Your task to perform on an android device: turn on wifi Image 0: 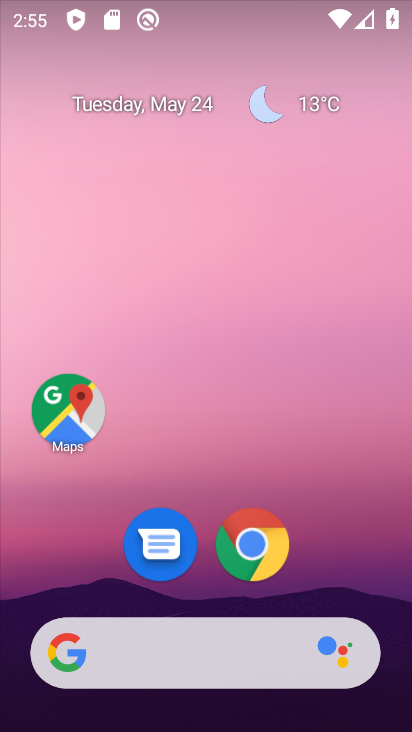
Step 0: drag from (313, 582) to (62, 9)
Your task to perform on an android device: turn on wifi Image 1: 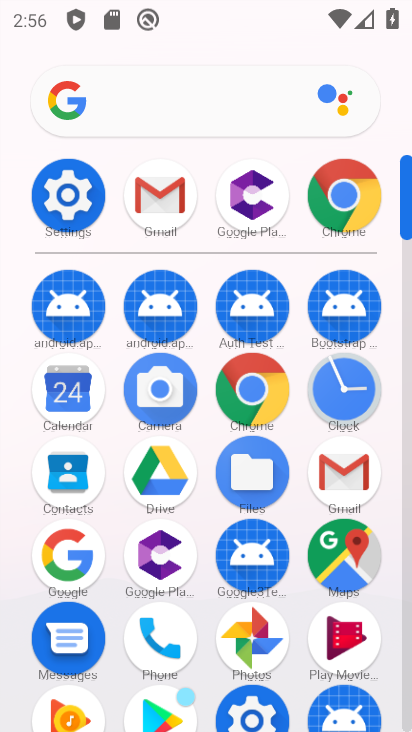
Step 1: click (66, 219)
Your task to perform on an android device: turn on wifi Image 2: 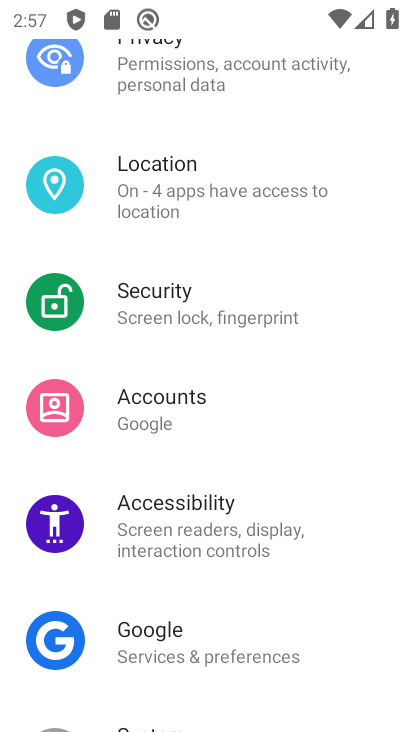
Step 2: drag from (157, 104) to (246, 692)
Your task to perform on an android device: turn on wifi Image 3: 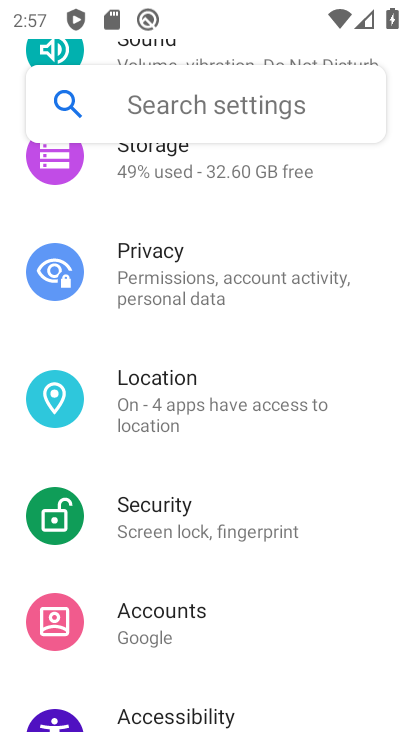
Step 3: drag from (189, 182) to (235, 678)
Your task to perform on an android device: turn on wifi Image 4: 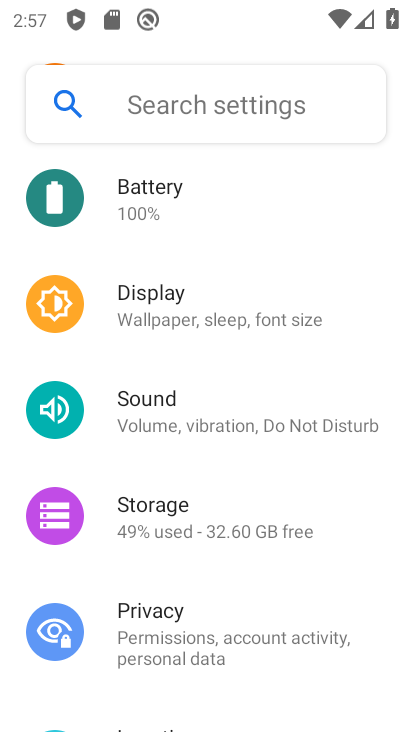
Step 4: drag from (183, 216) to (260, 565)
Your task to perform on an android device: turn on wifi Image 5: 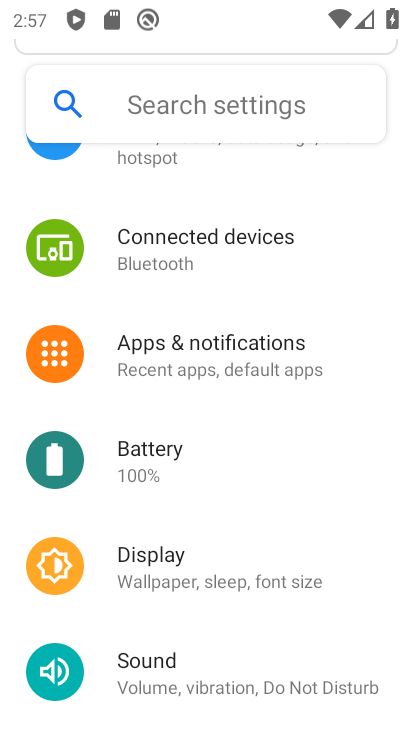
Step 5: drag from (154, 204) to (225, 584)
Your task to perform on an android device: turn on wifi Image 6: 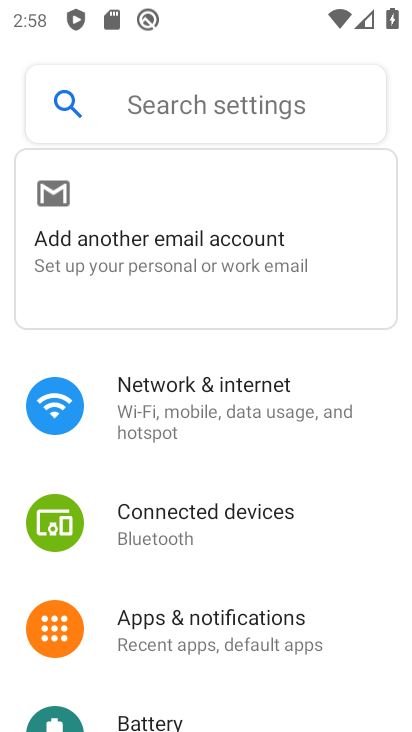
Step 6: click (182, 412)
Your task to perform on an android device: turn on wifi Image 7: 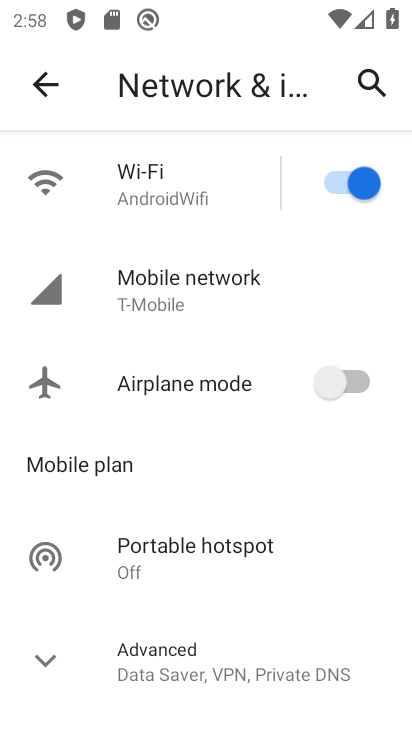
Step 7: task complete